Your task to perform on an android device: Go to Wikipedia Image 0: 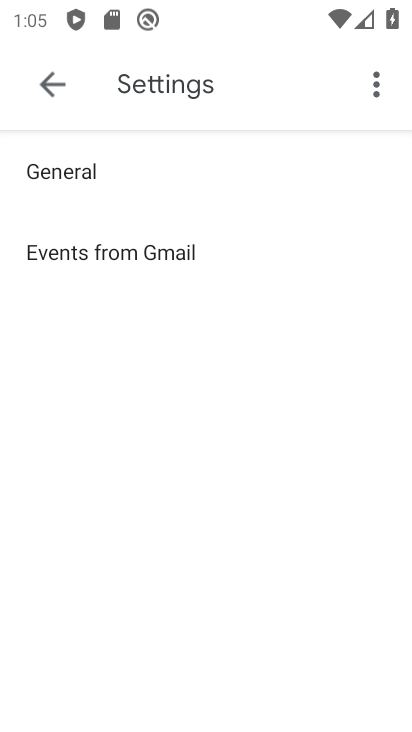
Step 0: press home button
Your task to perform on an android device: Go to Wikipedia Image 1: 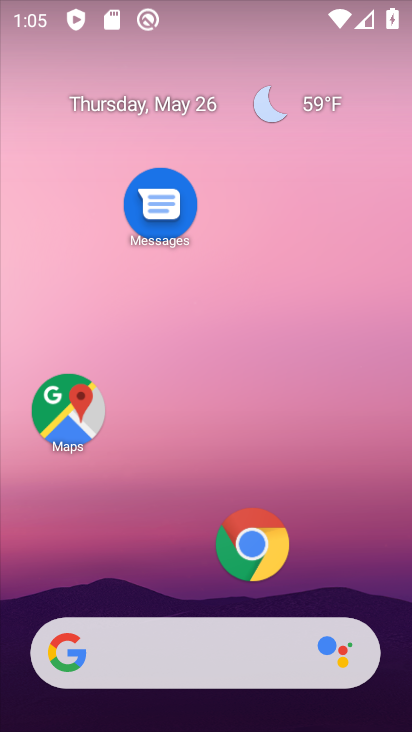
Step 1: click (269, 536)
Your task to perform on an android device: Go to Wikipedia Image 2: 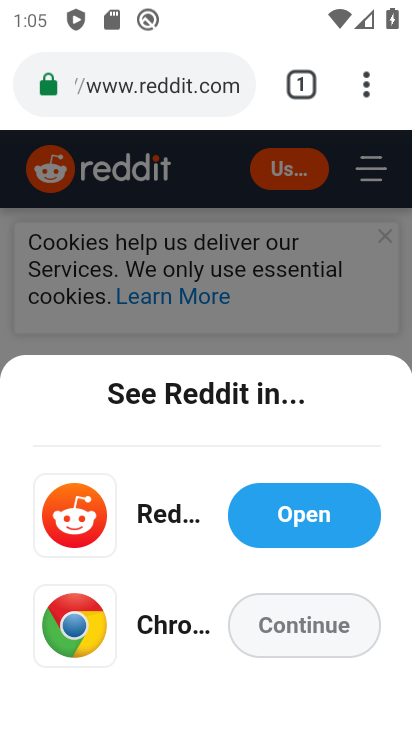
Step 2: click (292, 97)
Your task to perform on an android device: Go to Wikipedia Image 3: 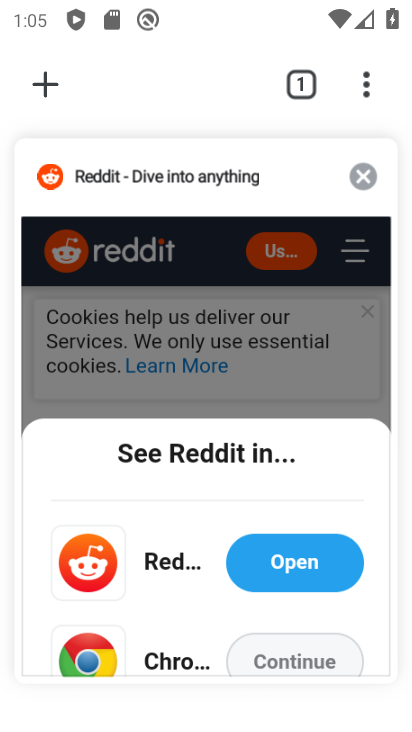
Step 3: click (41, 90)
Your task to perform on an android device: Go to Wikipedia Image 4: 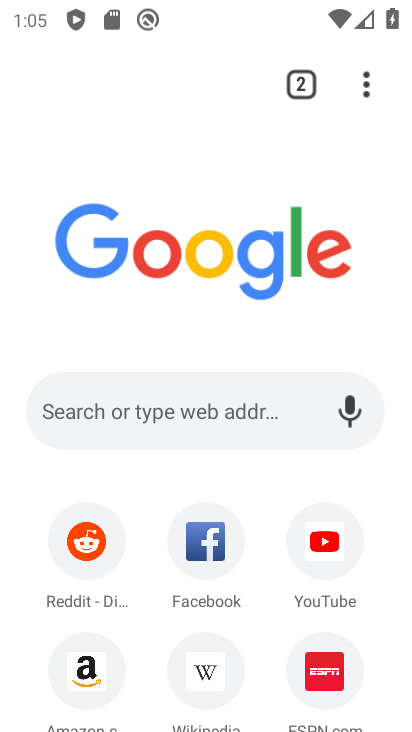
Step 4: click (199, 653)
Your task to perform on an android device: Go to Wikipedia Image 5: 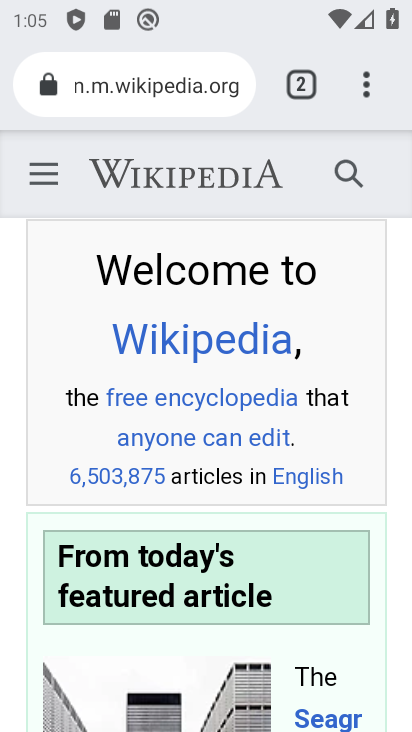
Step 5: task complete